Your task to perform on an android device: toggle translation in the chrome app Image 0: 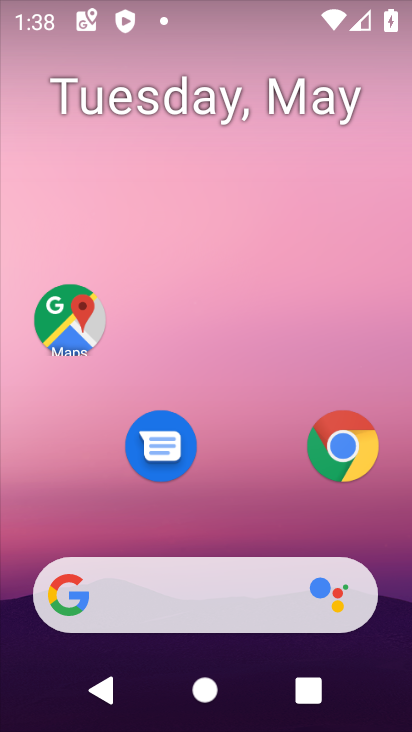
Step 0: drag from (198, 553) to (138, 44)
Your task to perform on an android device: toggle translation in the chrome app Image 1: 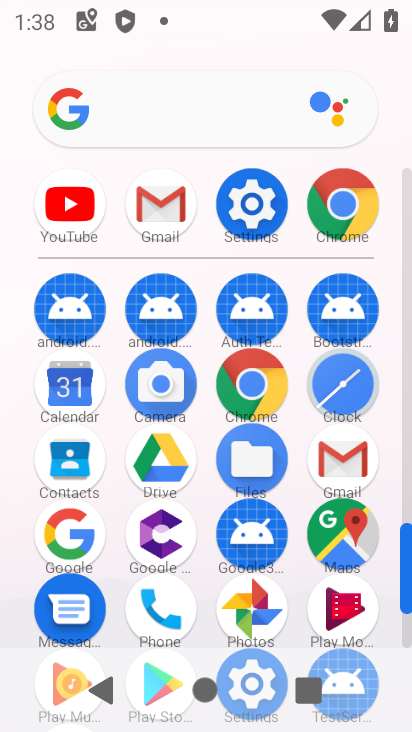
Step 1: click (344, 223)
Your task to perform on an android device: toggle translation in the chrome app Image 2: 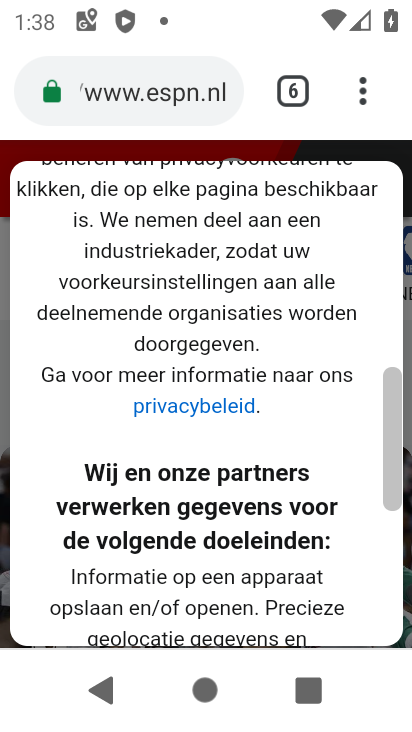
Step 2: click (356, 88)
Your task to perform on an android device: toggle translation in the chrome app Image 3: 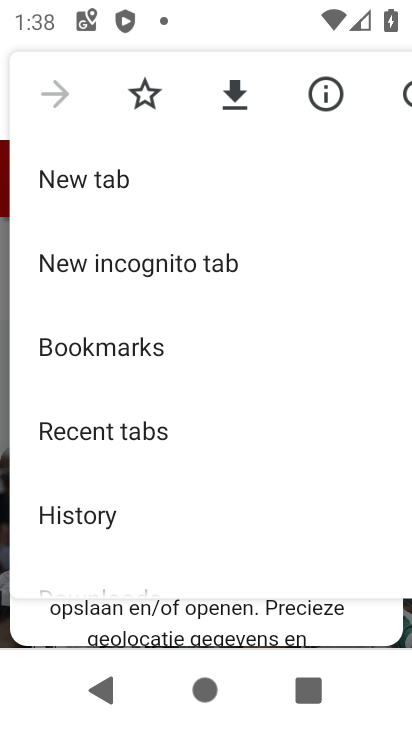
Step 3: drag from (156, 518) to (126, 89)
Your task to perform on an android device: toggle translation in the chrome app Image 4: 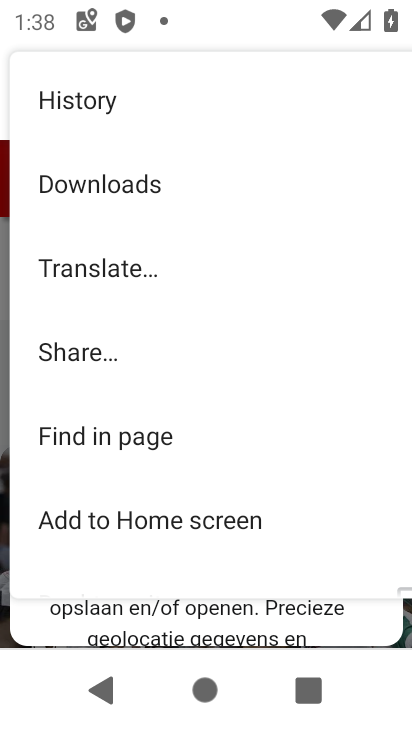
Step 4: drag from (148, 399) to (108, 93)
Your task to perform on an android device: toggle translation in the chrome app Image 5: 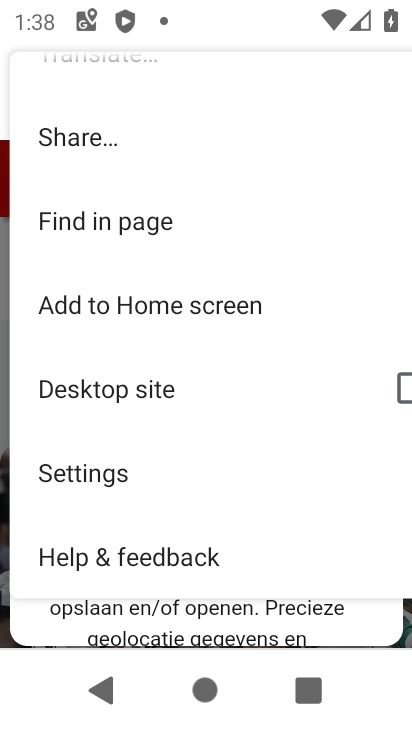
Step 5: click (112, 492)
Your task to perform on an android device: toggle translation in the chrome app Image 6: 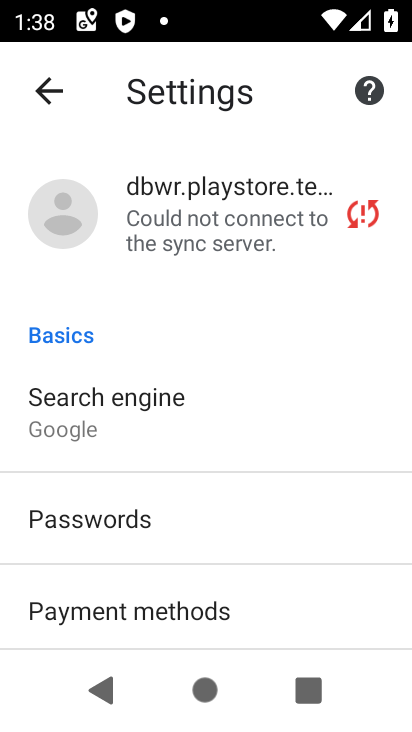
Step 6: drag from (221, 569) to (222, 135)
Your task to perform on an android device: toggle translation in the chrome app Image 7: 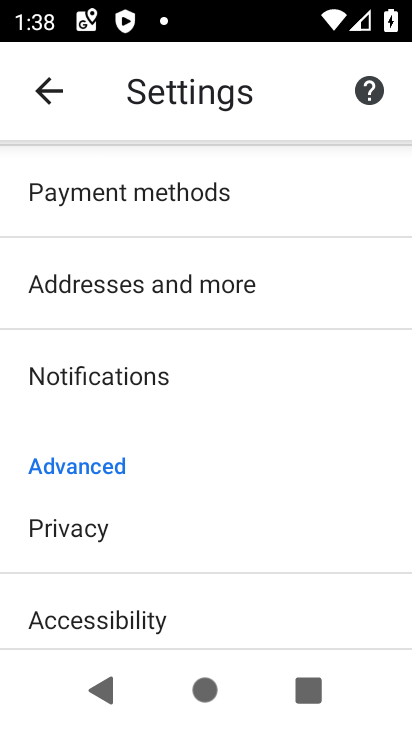
Step 7: drag from (170, 591) to (139, 131)
Your task to perform on an android device: toggle translation in the chrome app Image 8: 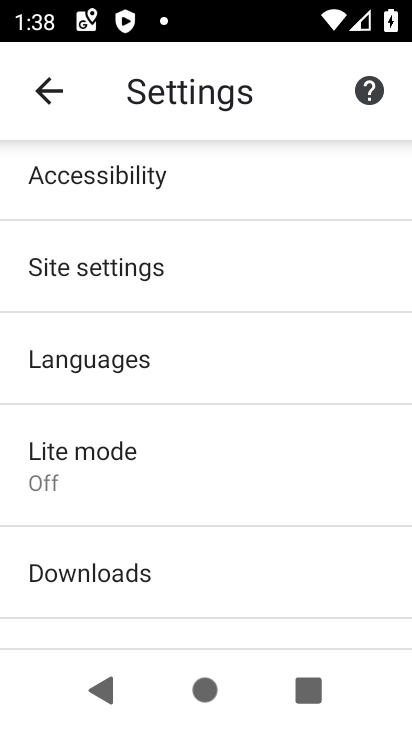
Step 8: click (118, 379)
Your task to perform on an android device: toggle translation in the chrome app Image 9: 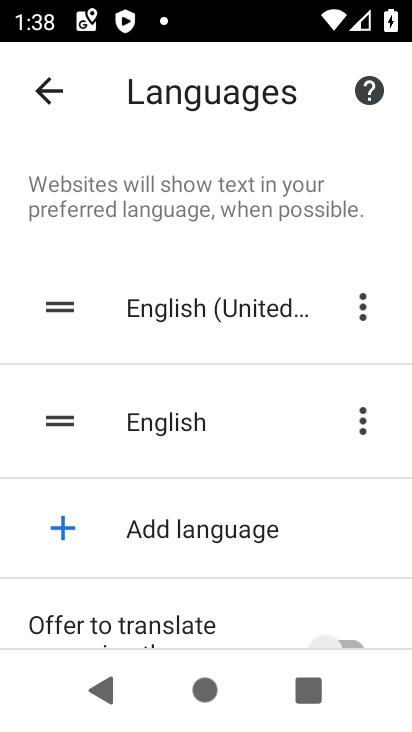
Step 9: click (335, 631)
Your task to perform on an android device: toggle translation in the chrome app Image 10: 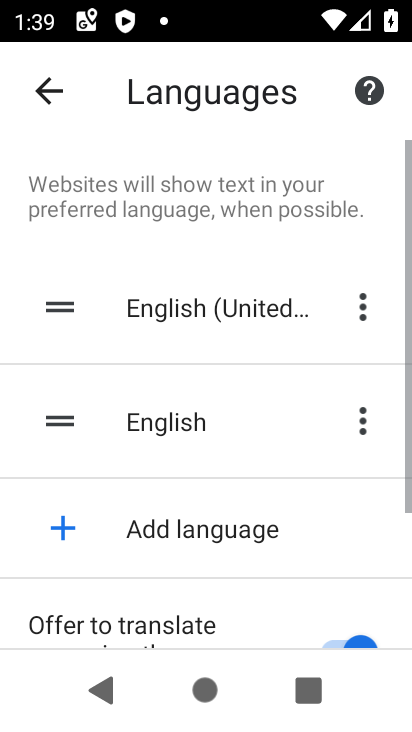
Step 10: task complete